Your task to perform on an android device: Search for Mexican restaurants on Maps Image 0: 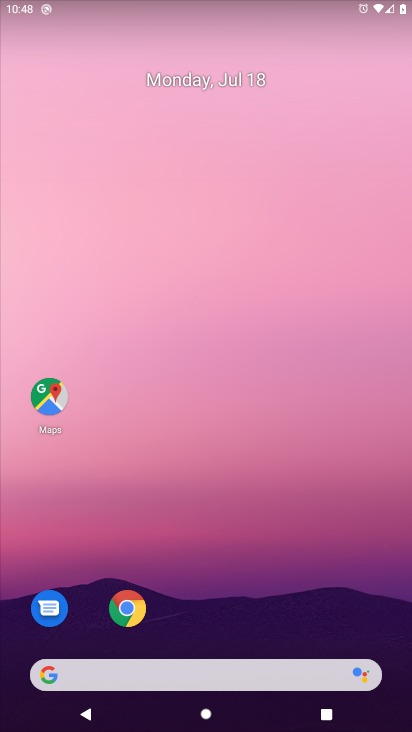
Step 0: click (51, 393)
Your task to perform on an android device: Search for Mexican restaurants on Maps Image 1: 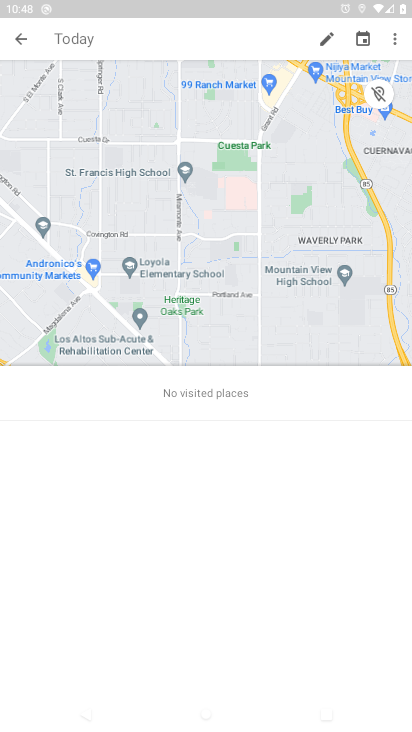
Step 1: click (18, 39)
Your task to perform on an android device: Search for Mexican restaurants on Maps Image 2: 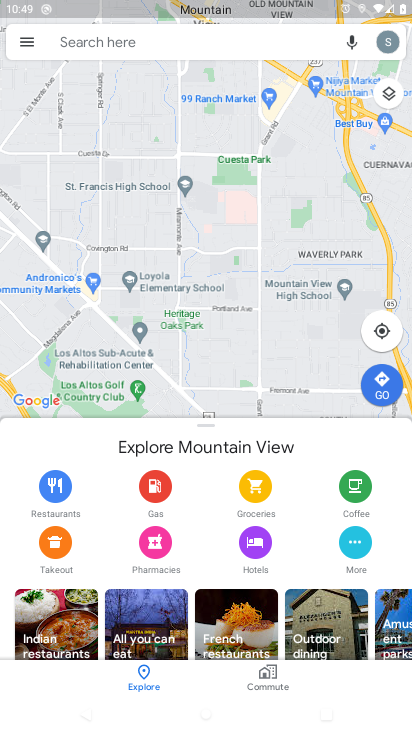
Step 2: click (89, 43)
Your task to perform on an android device: Search for Mexican restaurants on Maps Image 3: 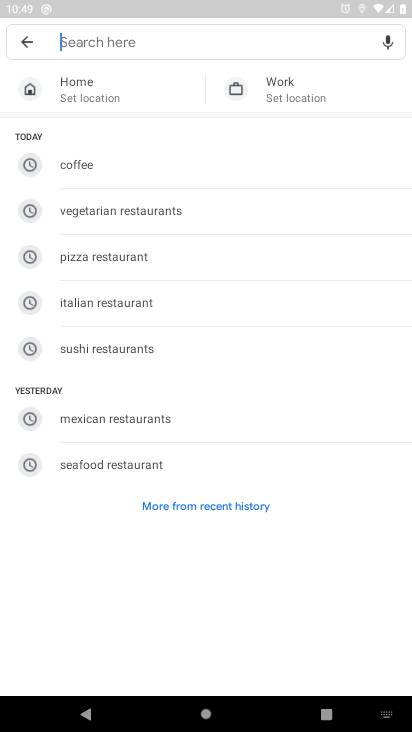
Step 3: type " Mexican restaurants"
Your task to perform on an android device: Search for Mexican restaurants on Maps Image 4: 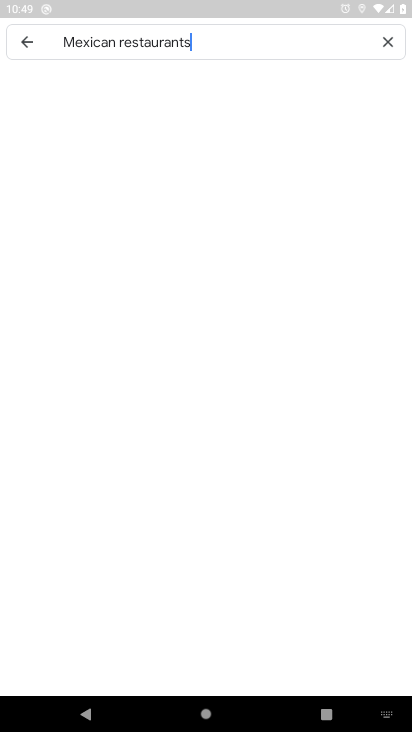
Step 4: type ""
Your task to perform on an android device: Search for Mexican restaurants on Maps Image 5: 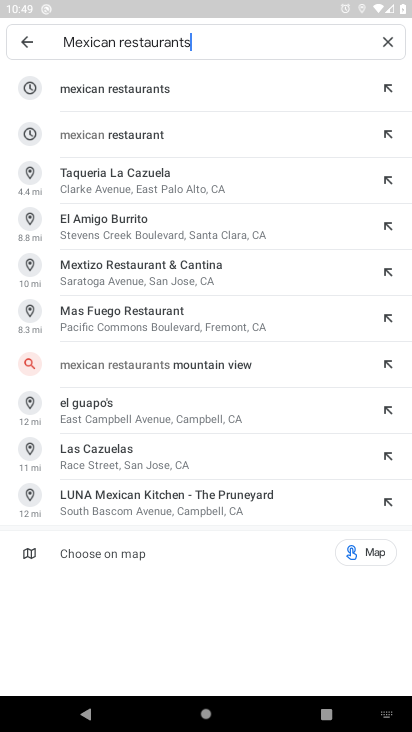
Step 5: click (123, 73)
Your task to perform on an android device: Search for Mexican restaurants on Maps Image 6: 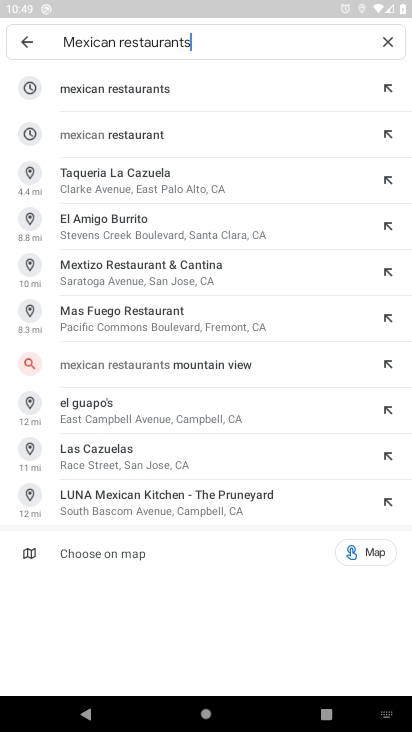
Step 6: click (123, 84)
Your task to perform on an android device: Search for Mexican restaurants on Maps Image 7: 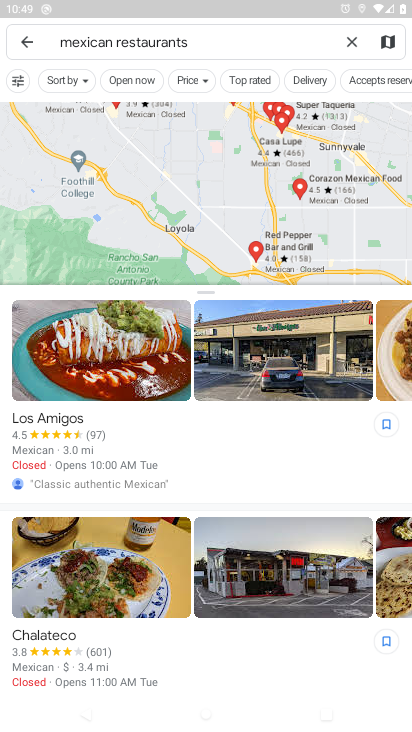
Step 7: task complete